Your task to perform on an android device: Open privacy settings Image 0: 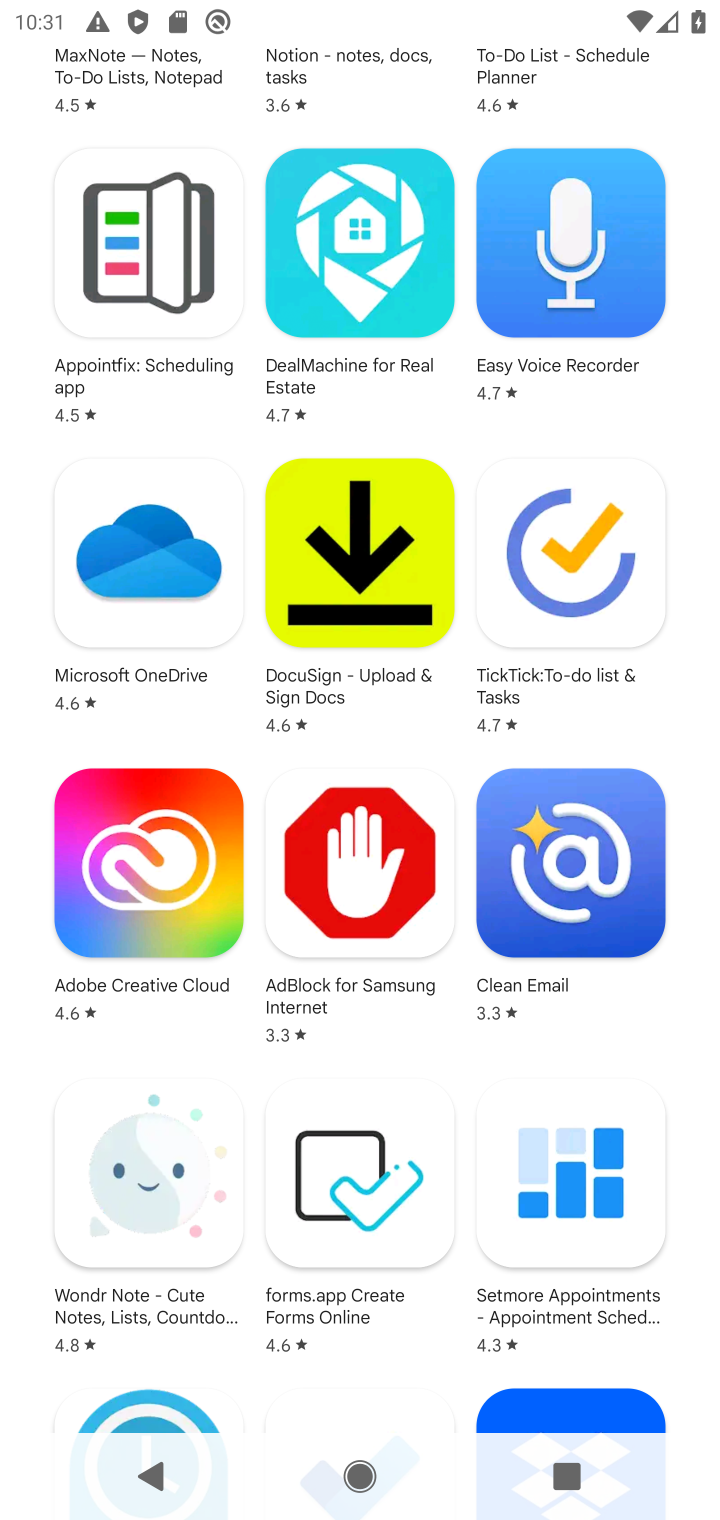
Step 0: press home button
Your task to perform on an android device: Open privacy settings Image 1: 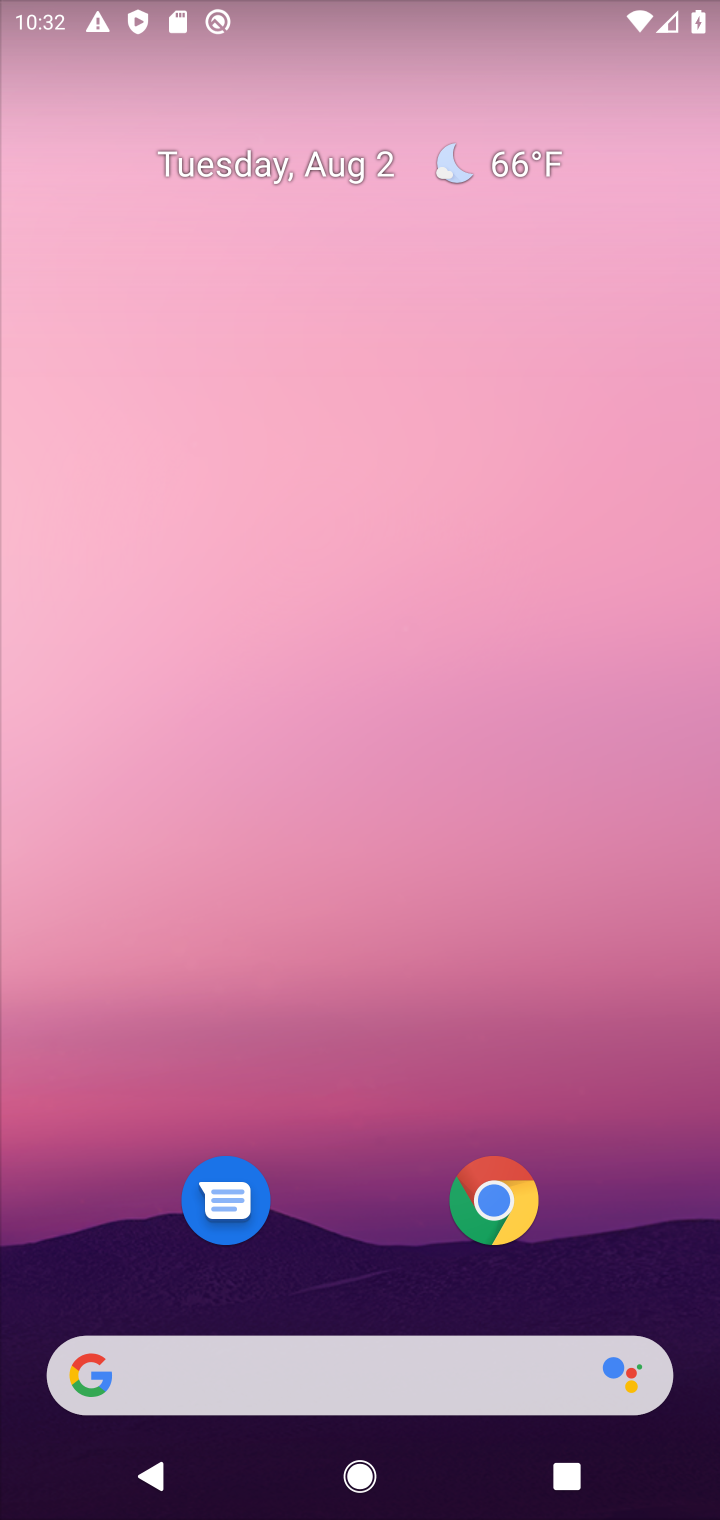
Step 1: drag from (644, 990) to (594, 125)
Your task to perform on an android device: Open privacy settings Image 2: 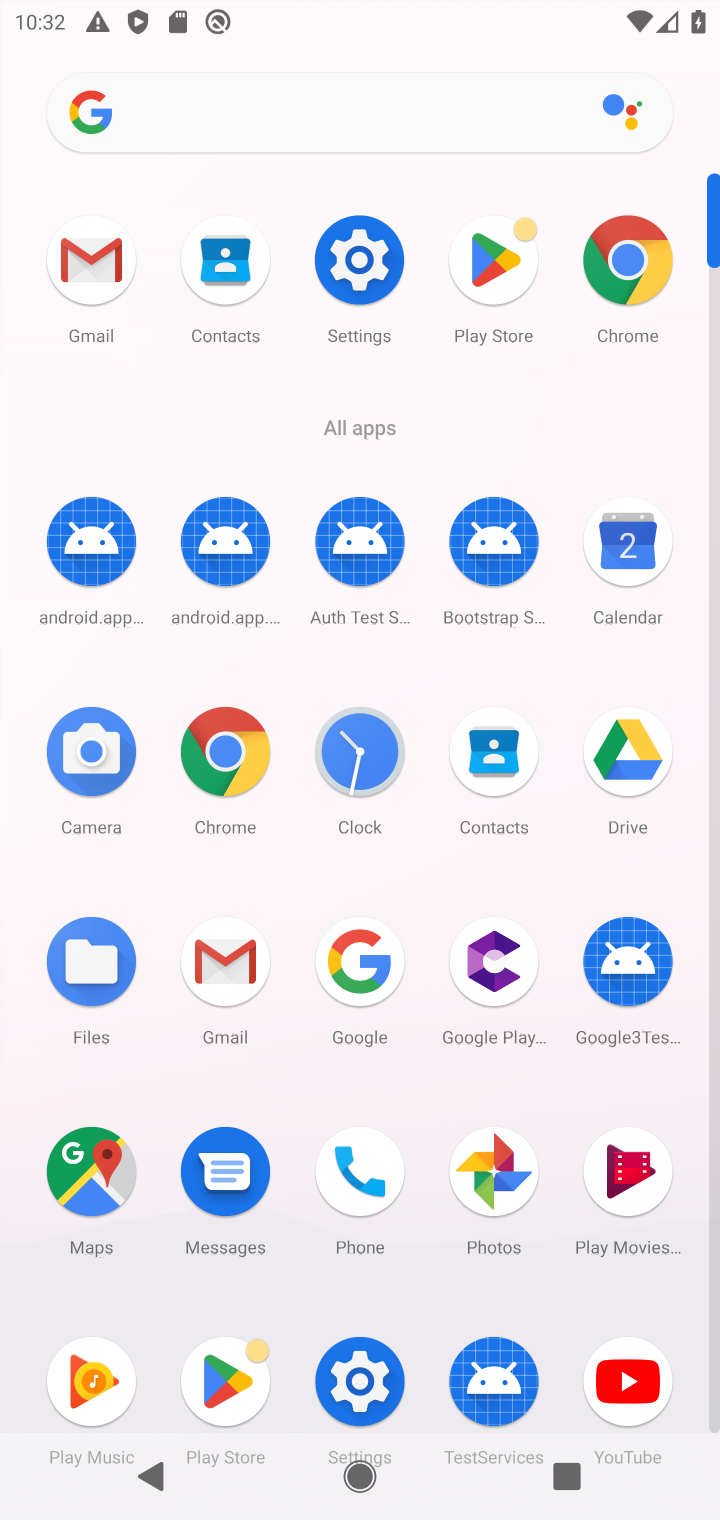
Step 2: click (359, 1388)
Your task to perform on an android device: Open privacy settings Image 3: 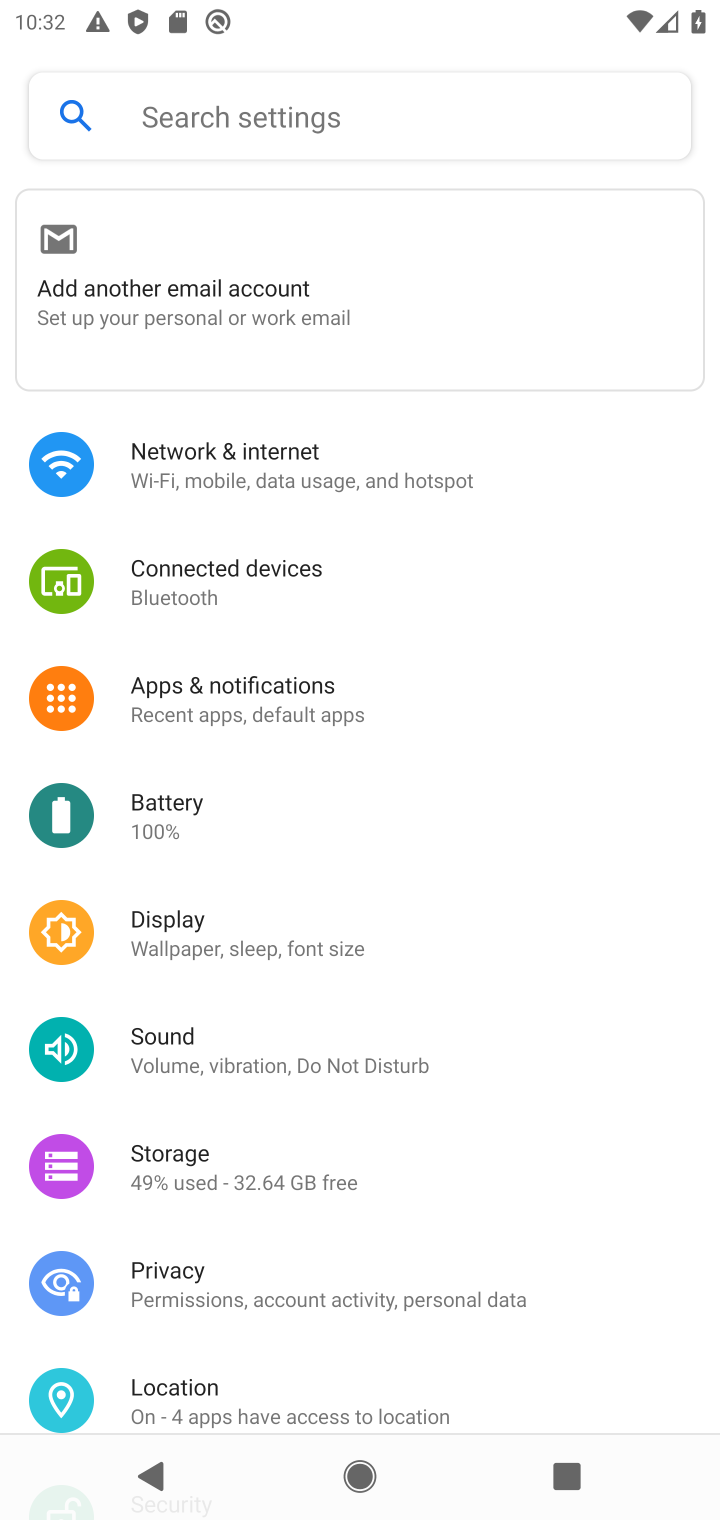
Step 3: drag from (578, 1322) to (523, 534)
Your task to perform on an android device: Open privacy settings Image 4: 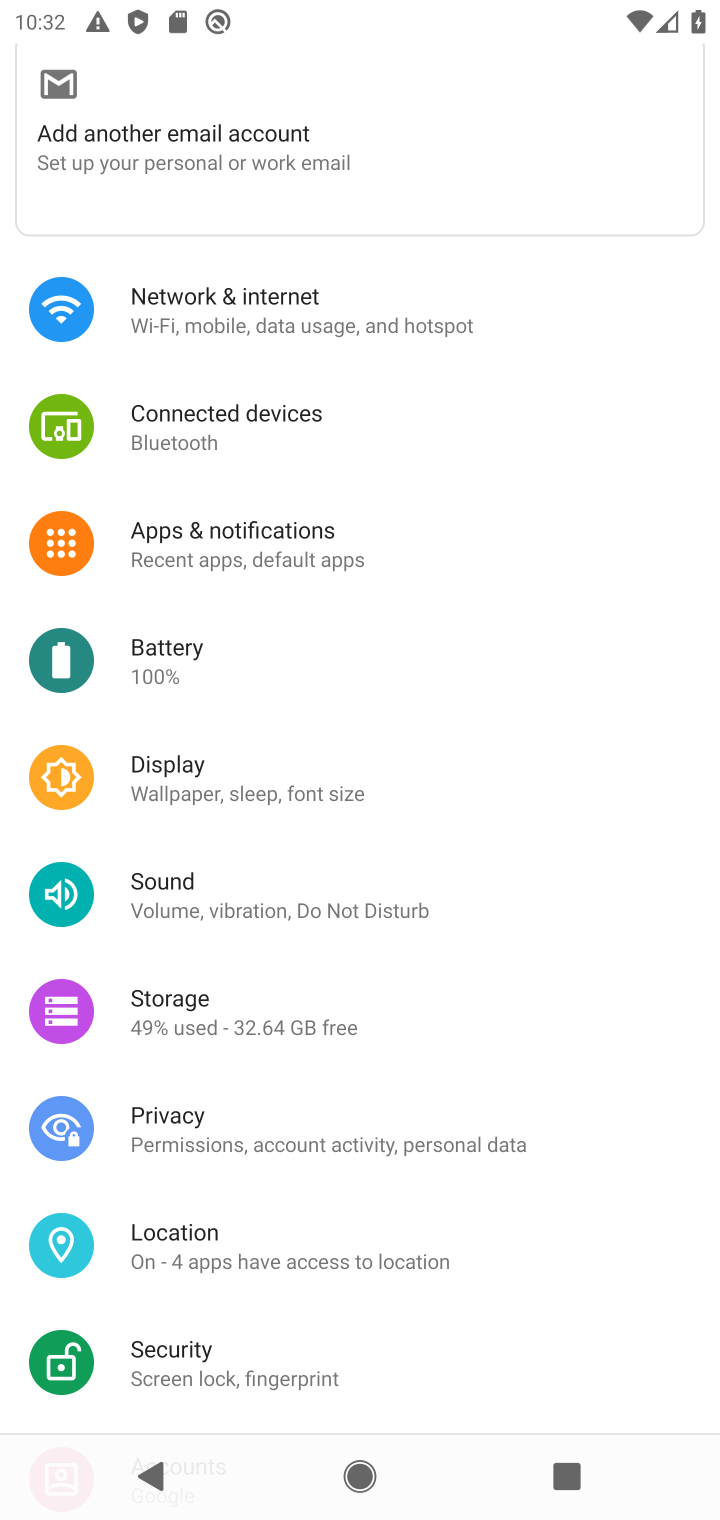
Step 4: click (191, 1126)
Your task to perform on an android device: Open privacy settings Image 5: 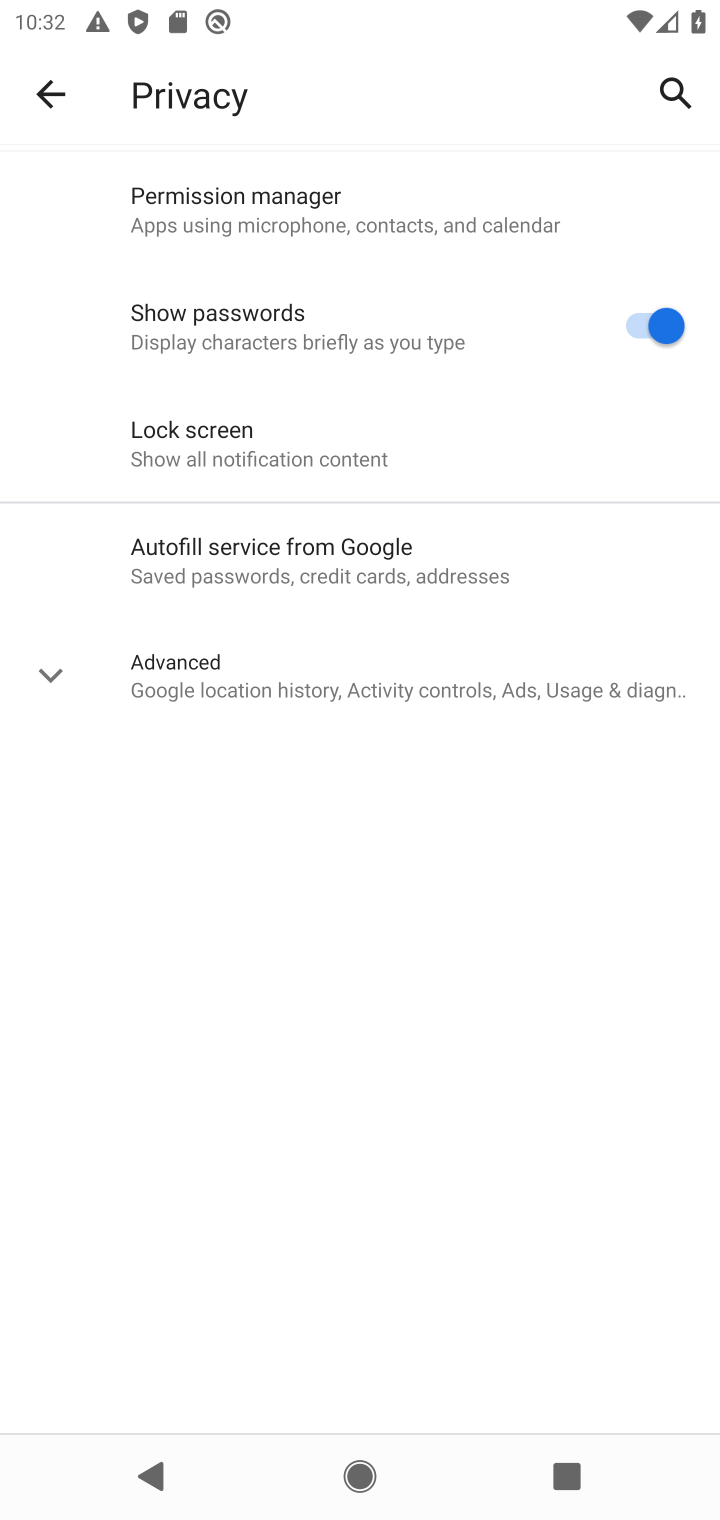
Step 5: click (44, 678)
Your task to perform on an android device: Open privacy settings Image 6: 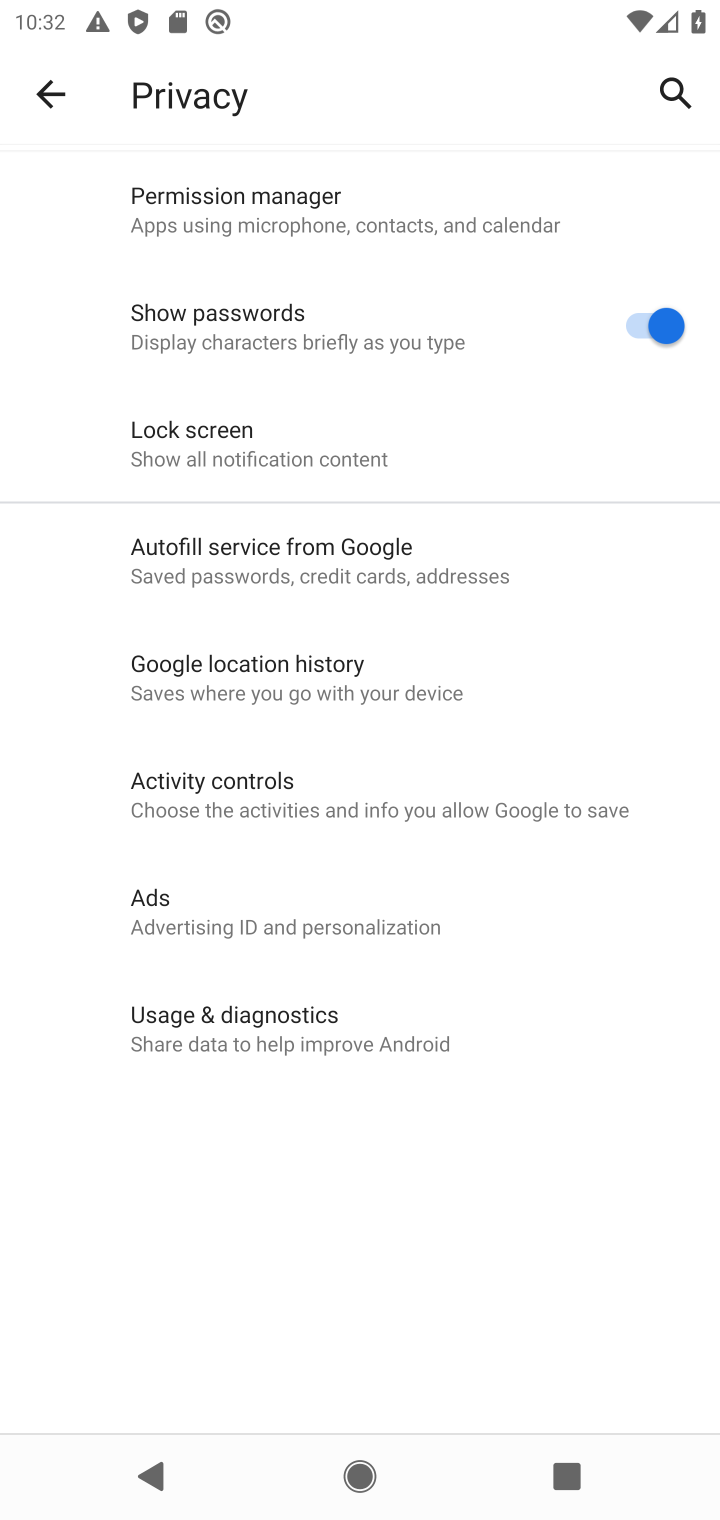
Step 6: task complete